Your task to perform on an android device: toggle location history Image 0: 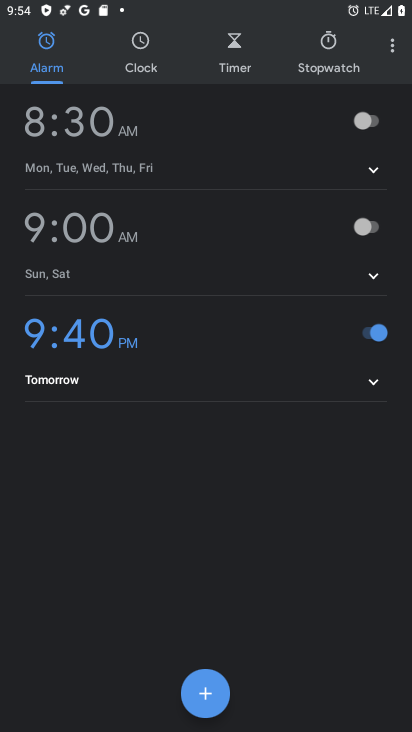
Step 0: press home button
Your task to perform on an android device: toggle location history Image 1: 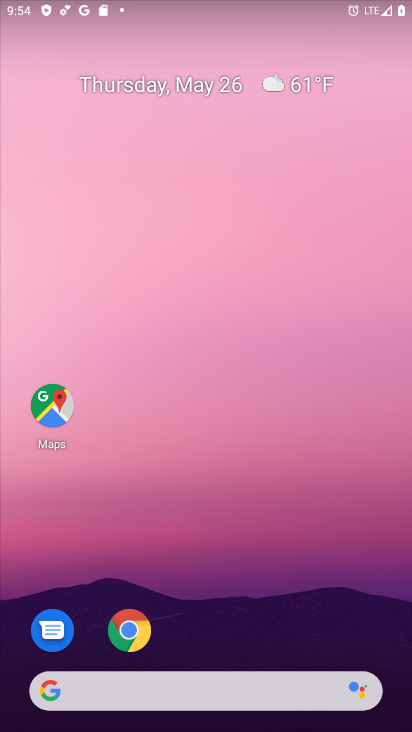
Step 1: drag from (208, 645) to (195, 134)
Your task to perform on an android device: toggle location history Image 2: 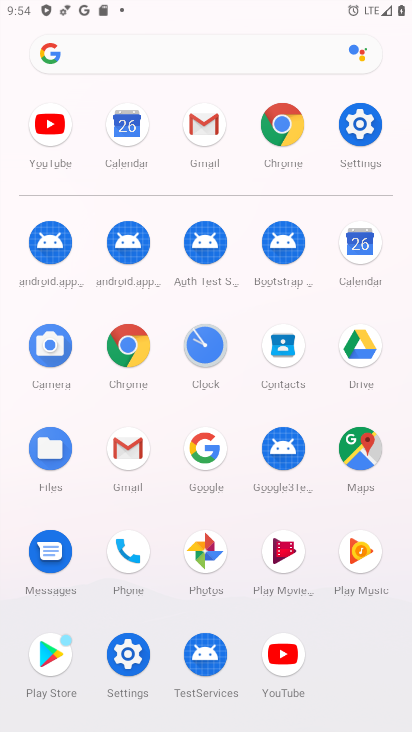
Step 2: click (126, 632)
Your task to perform on an android device: toggle location history Image 3: 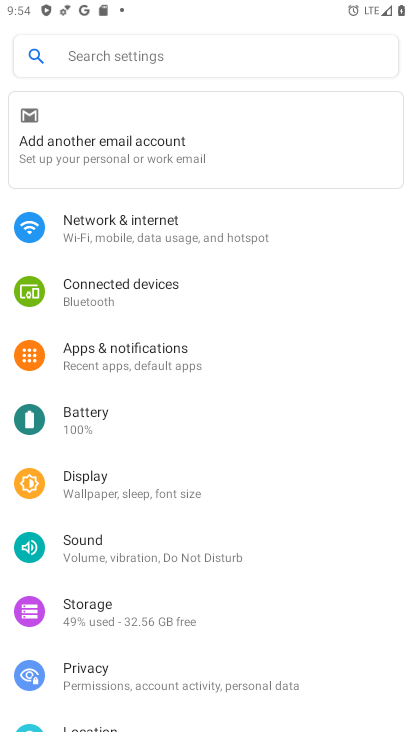
Step 3: drag from (126, 632) to (139, 375)
Your task to perform on an android device: toggle location history Image 4: 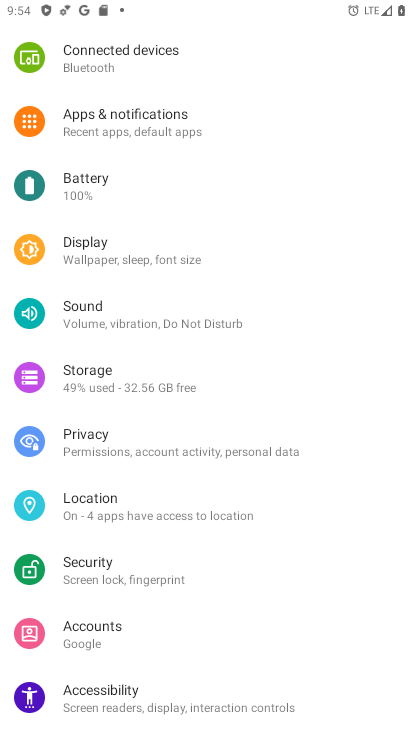
Step 4: click (100, 502)
Your task to perform on an android device: toggle location history Image 5: 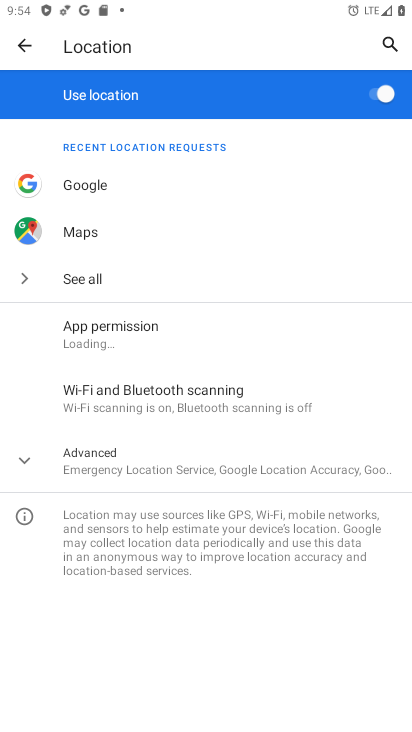
Step 5: click (144, 469)
Your task to perform on an android device: toggle location history Image 6: 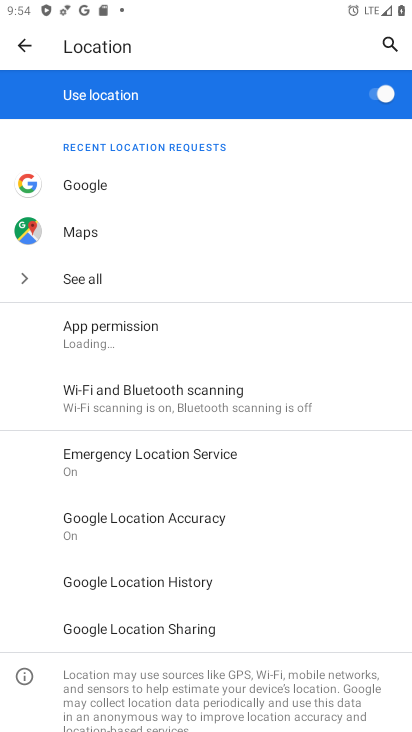
Step 6: click (136, 594)
Your task to perform on an android device: toggle location history Image 7: 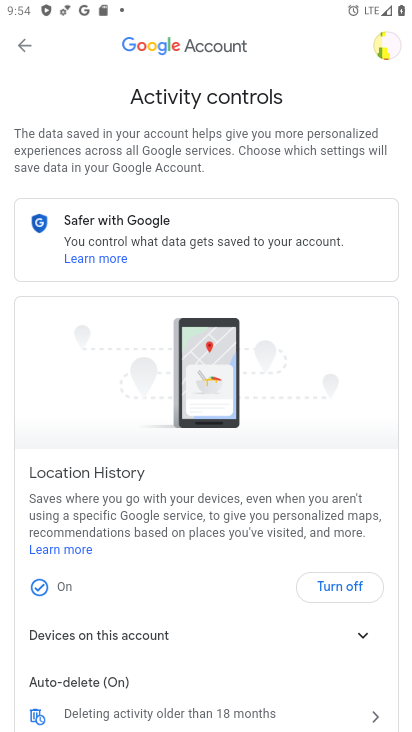
Step 7: click (320, 593)
Your task to perform on an android device: toggle location history Image 8: 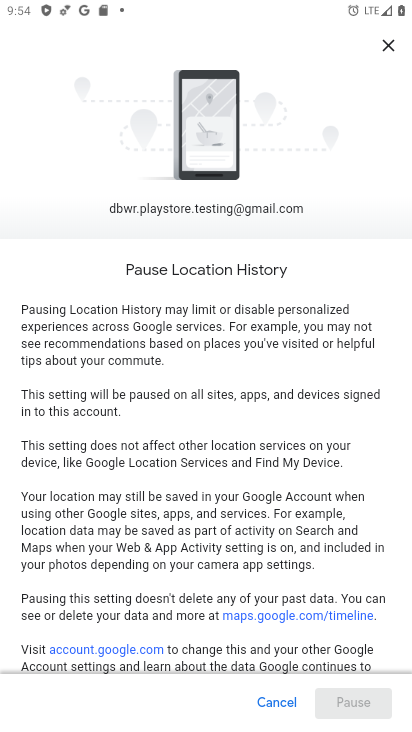
Step 8: drag from (320, 593) to (278, 258)
Your task to perform on an android device: toggle location history Image 9: 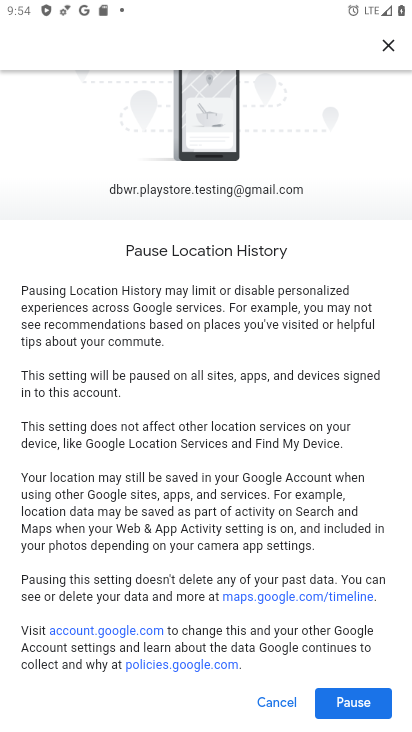
Step 9: click (363, 693)
Your task to perform on an android device: toggle location history Image 10: 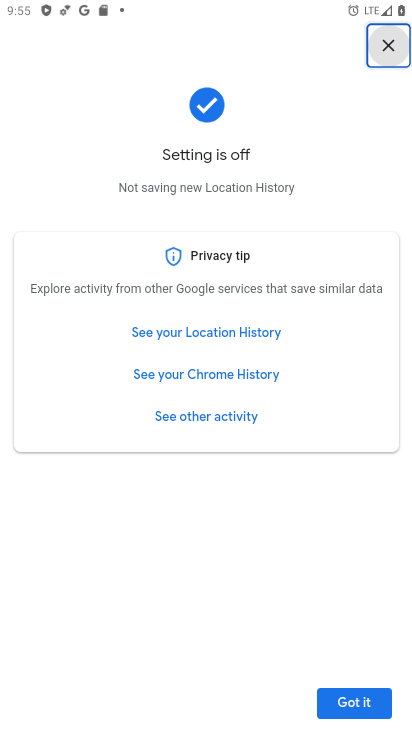
Step 10: click (354, 700)
Your task to perform on an android device: toggle location history Image 11: 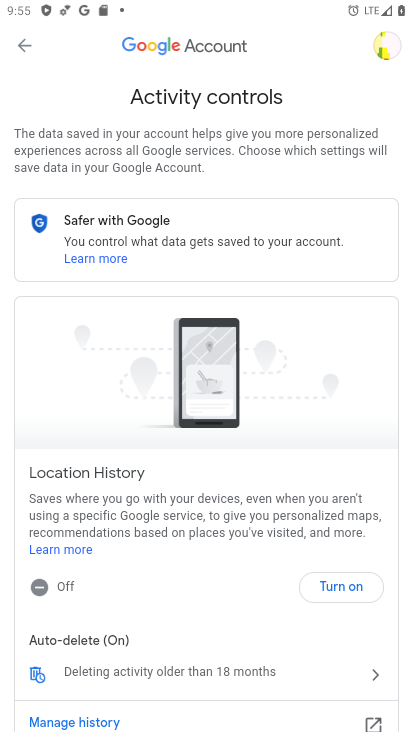
Step 11: task complete